Your task to perform on an android device: Go to sound settings Image 0: 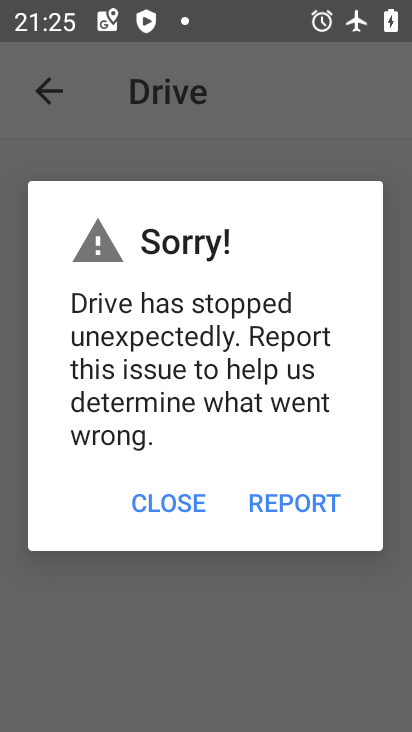
Step 0: press home button
Your task to perform on an android device: Go to sound settings Image 1: 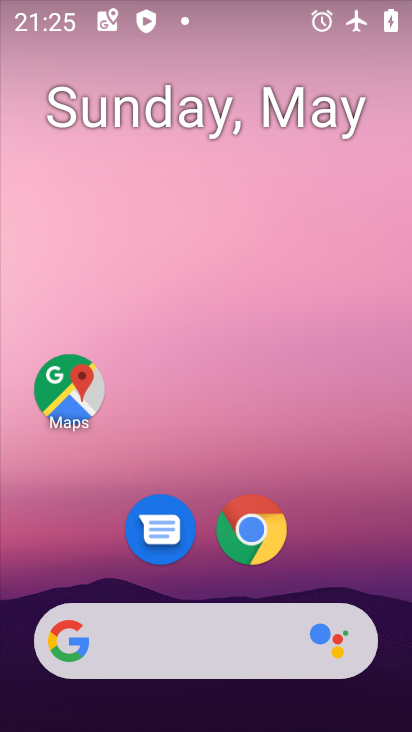
Step 1: drag from (347, 569) to (283, 5)
Your task to perform on an android device: Go to sound settings Image 2: 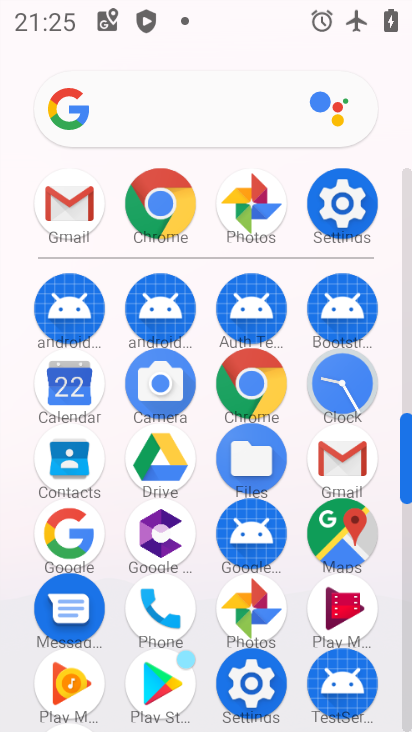
Step 2: click (339, 203)
Your task to perform on an android device: Go to sound settings Image 3: 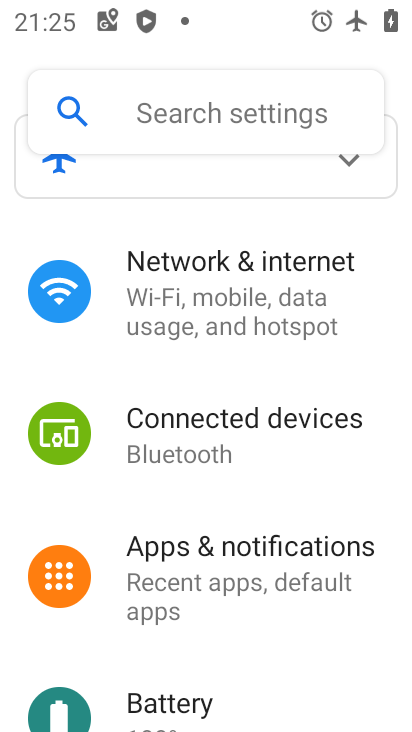
Step 3: drag from (316, 588) to (258, 71)
Your task to perform on an android device: Go to sound settings Image 4: 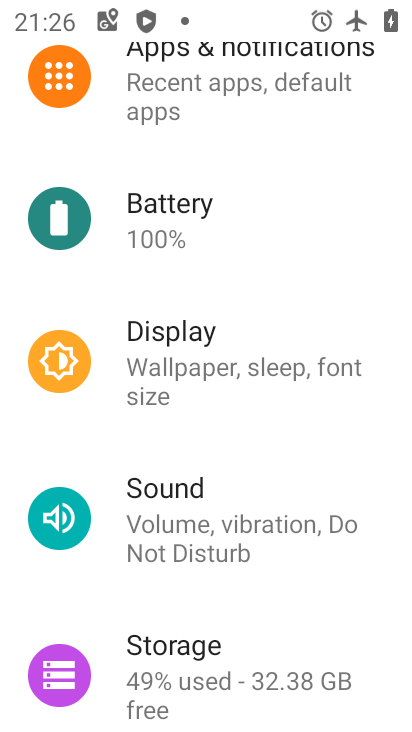
Step 4: click (177, 517)
Your task to perform on an android device: Go to sound settings Image 5: 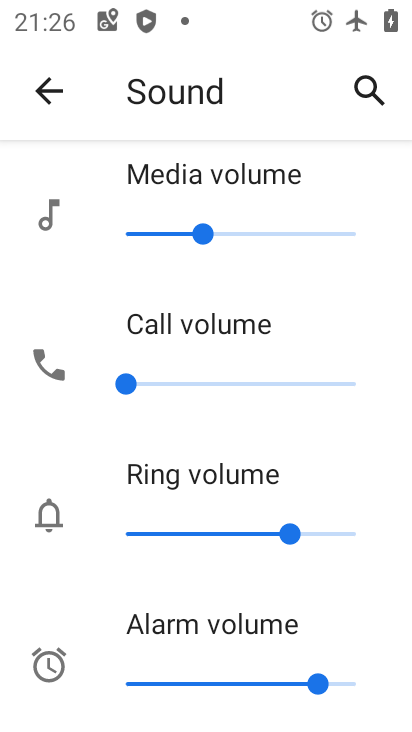
Step 5: task complete